Your task to perform on an android device: Go to display settings Image 0: 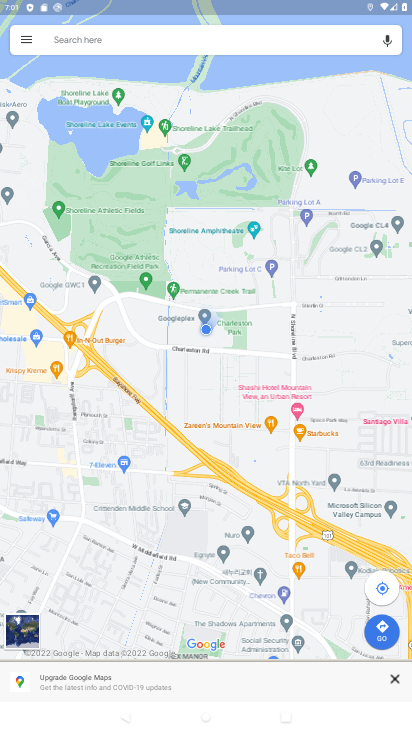
Step 0: press home button
Your task to perform on an android device: Go to display settings Image 1: 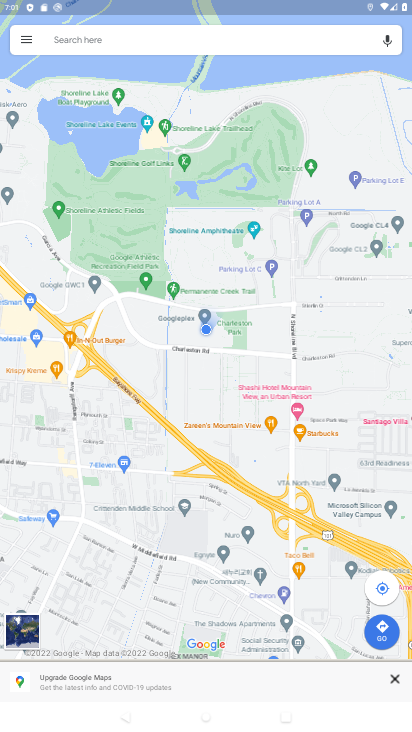
Step 1: press home button
Your task to perform on an android device: Go to display settings Image 2: 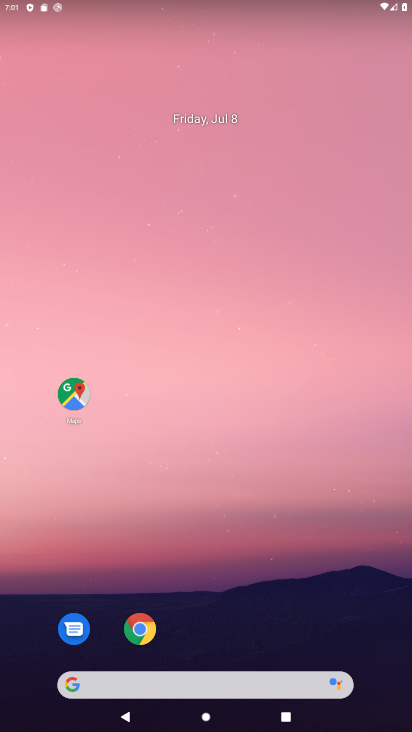
Step 2: drag from (213, 588) to (141, 4)
Your task to perform on an android device: Go to display settings Image 3: 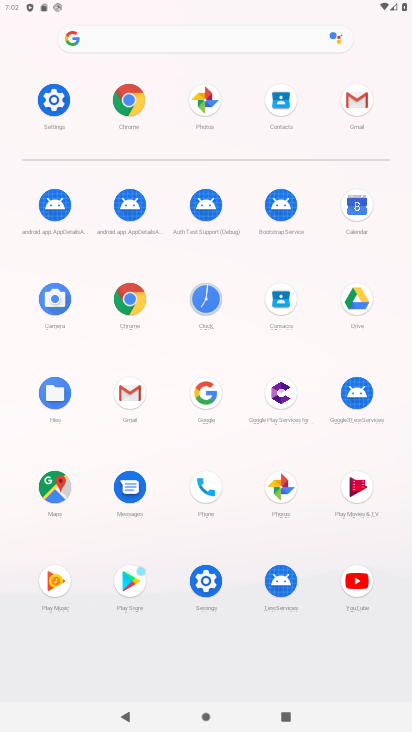
Step 3: click (68, 106)
Your task to perform on an android device: Go to display settings Image 4: 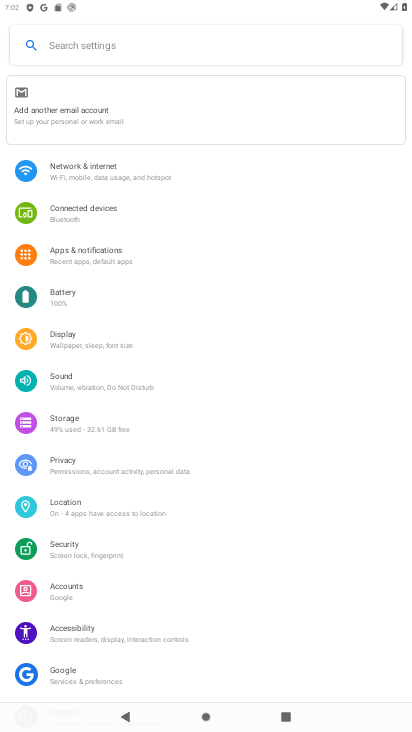
Step 4: click (64, 352)
Your task to perform on an android device: Go to display settings Image 5: 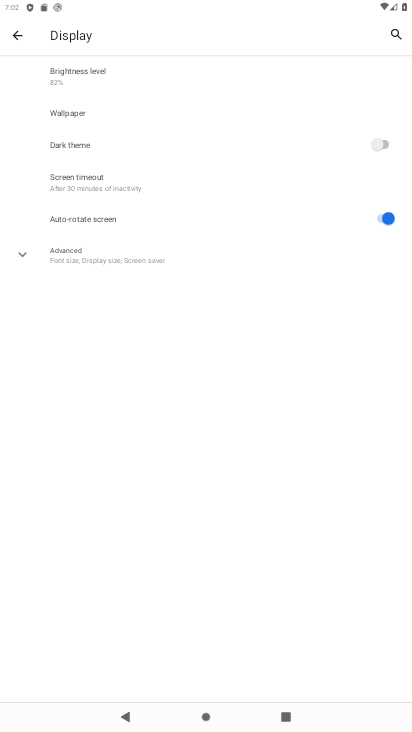
Step 5: task complete